Your task to perform on an android device: How much does a 2 bedroom apartment rent for in Portland? Image 0: 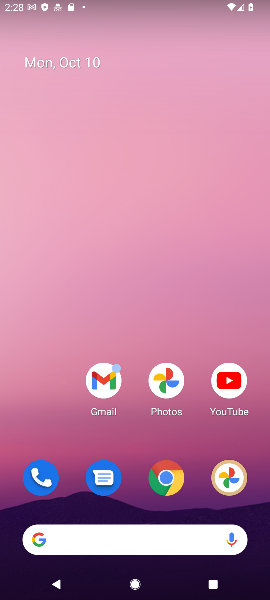
Step 0: click (164, 476)
Your task to perform on an android device: How much does a 2 bedroom apartment rent for in Portland? Image 1: 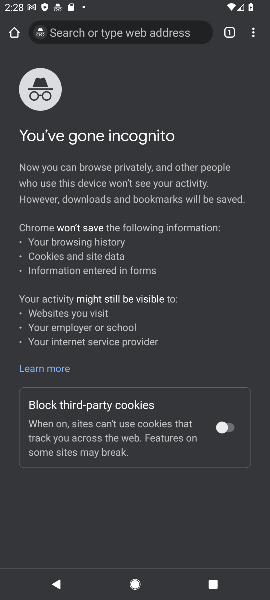
Step 1: click (102, 35)
Your task to perform on an android device: How much does a 2 bedroom apartment rent for in Portland? Image 2: 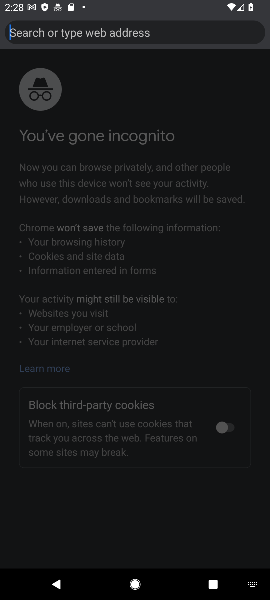
Step 2: type "How much does a 2 bedroom apartment rent for in Portland?"
Your task to perform on an android device: How much does a 2 bedroom apartment rent for in Portland? Image 3: 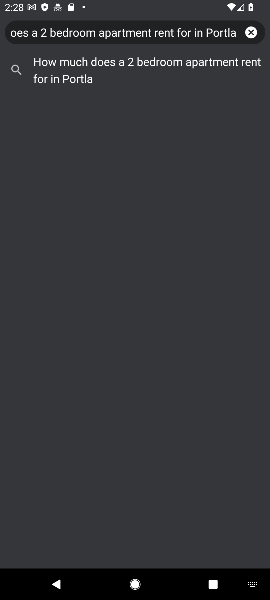
Step 3: click (121, 79)
Your task to perform on an android device: How much does a 2 bedroom apartment rent for in Portland? Image 4: 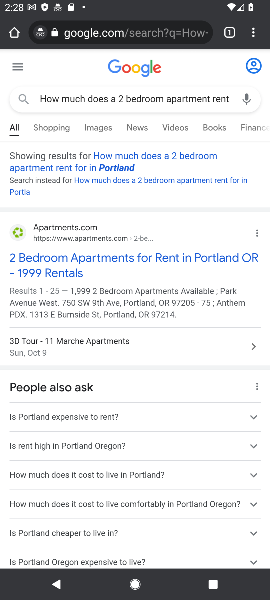
Step 4: click (56, 277)
Your task to perform on an android device: How much does a 2 bedroom apartment rent for in Portland? Image 5: 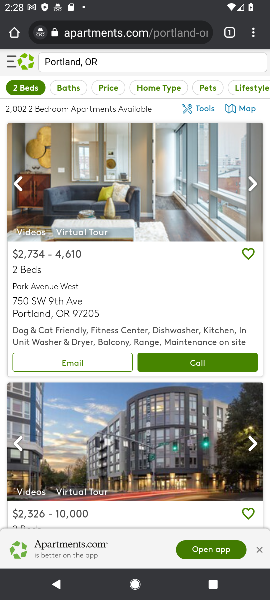
Step 5: task complete